Your task to perform on an android device: Search for the best rated headphones on Walmart Image 0: 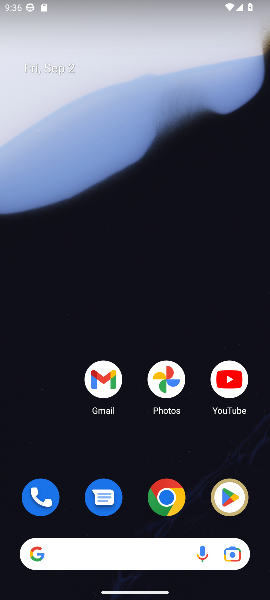
Step 0: drag from (126, 462) to (268, 164)
Your task to perform on an android device: Search for the best rated headphones on Walmart Image 1: 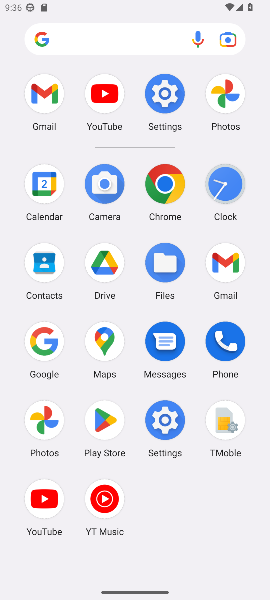
Step 1: click (45, 347)
Your task to perform on an android device: Search for the best rated headphones on Walmart Image 2: 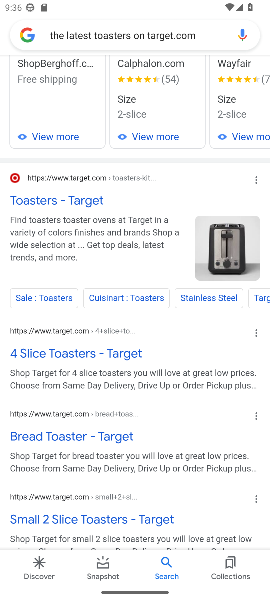
Step 2: click (139, 39)
Your task to perform on an android device: Search for the best rated headphones on Walmart Image 3: 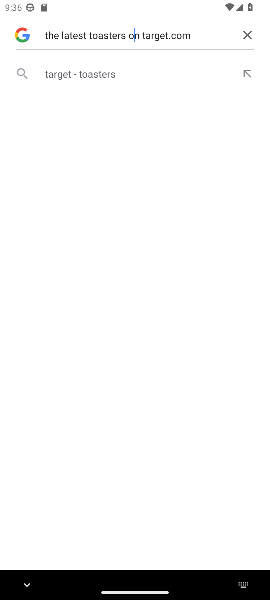
Step 3: click (248, 34)
Your task to perform on an android device: Search for the best rated headphones on Walmart Image 4: 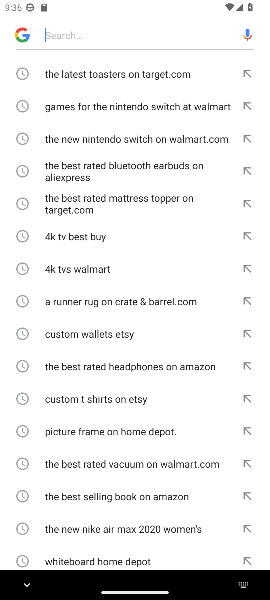
Step 4: click (185, 35)
Your task to perform on an android device: Search for the best rated headphones on Walmart Image 5: 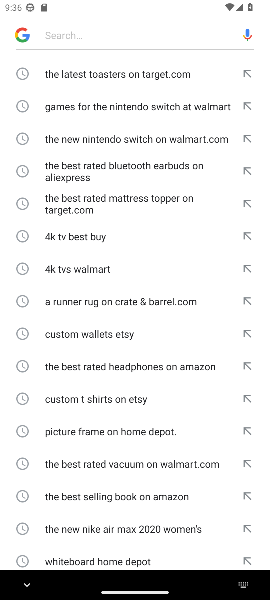
Step 5: type "the best rated headphones on Walmart"
Your task to perform on an android device: Search for the best rated headphones on Walmart Image 6: 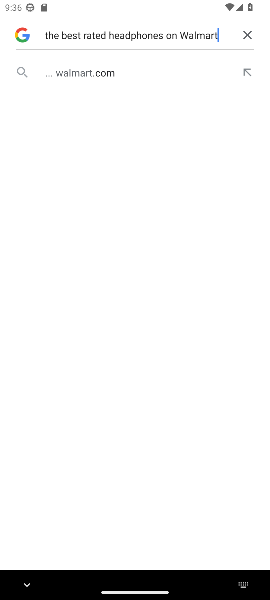
Step 6: click (91, 72)
Your task to perform on an android device: Search for the best rated headphones on Walmart Image 7: 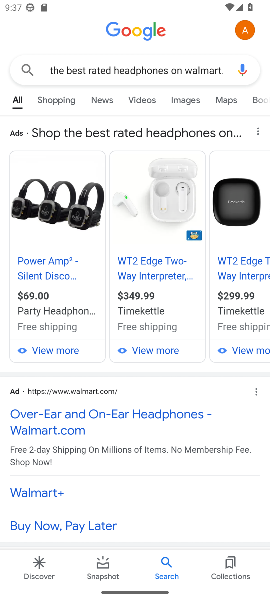
Step 7: click (56, 424)
Your task to perform on an android device: Search for the best rated headphones on Walmart Image 8: 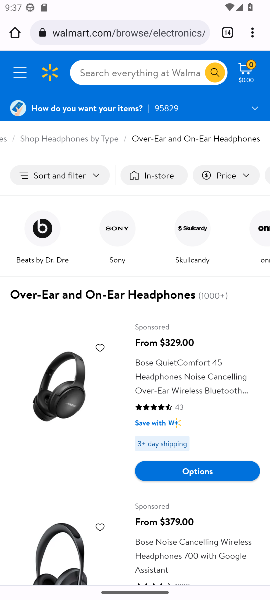
Step 8: task complete